Your task to perform on an android device: delete a single message in the gmail app Image 0: 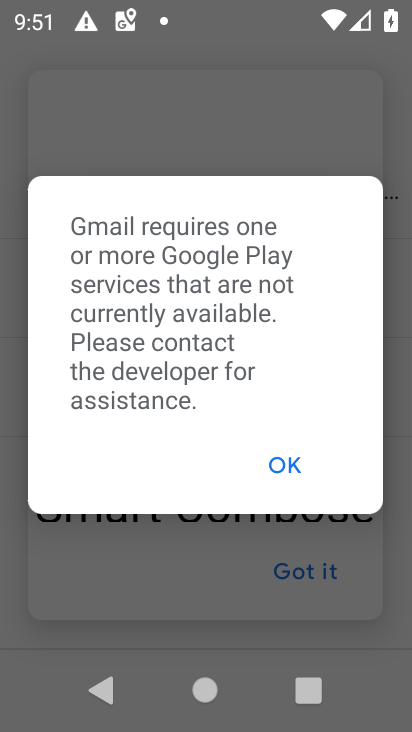
Step 0: press home button
Your task to perform on an android device: delete a single message in the gmail app Image 1: 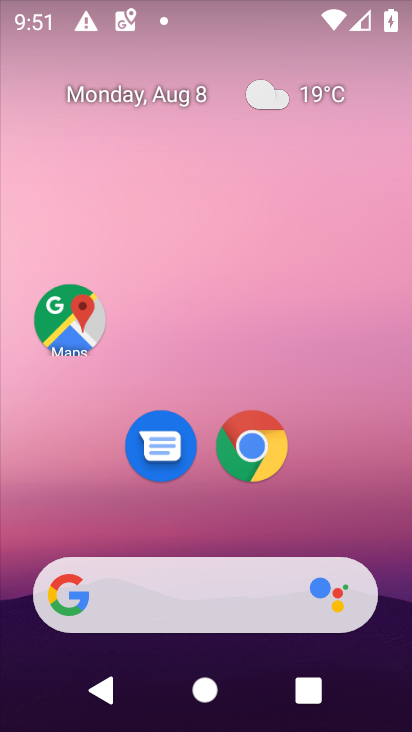
Step 1: drag from (403, 623) to (383, 159)
Your task to perform on an android device: delete a single message in the gmail app Image 2: 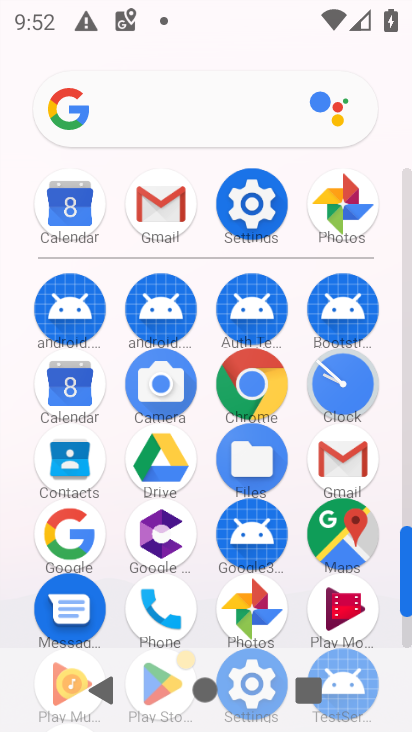
Step 2: click (340, 459)
Your task to perform on an android device: delete a single message in the gmail app Image 3: 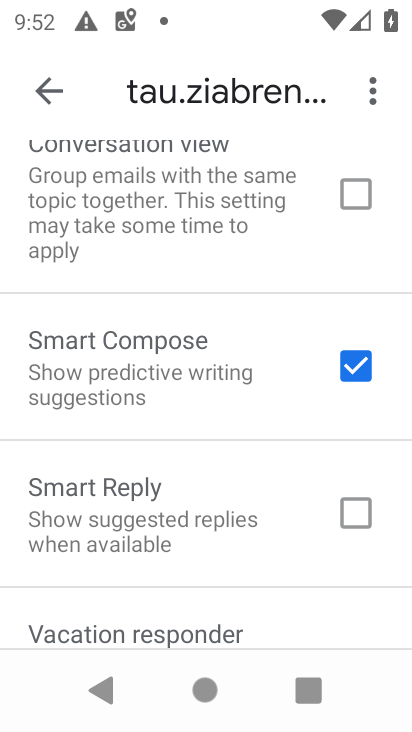
Step 3: press back button
Your task to perform on an android device: delete a single message in the gmail app Image 4: 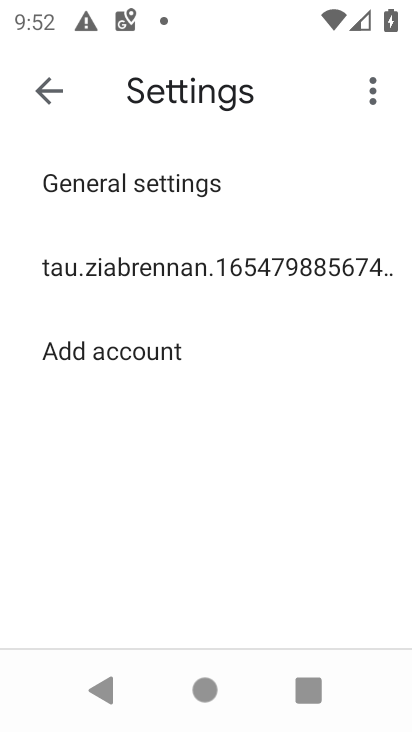
Step 4: press back button
Your task to perform on an android device: delete a single message in the gmail app Image 5: 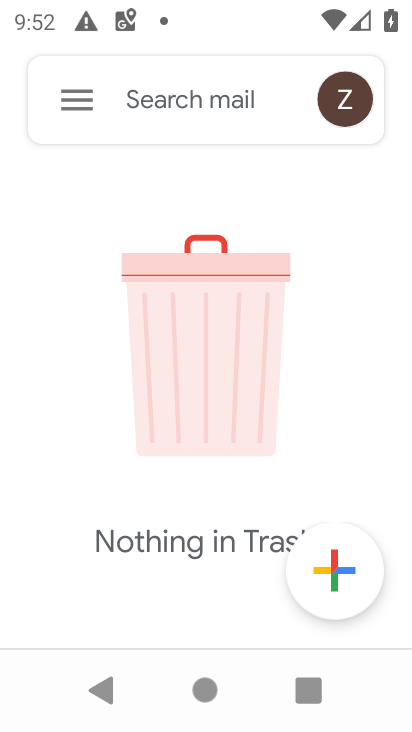
Step 5: click (71, 93)
Your task to perform on an android device: delete a single message in the gmail app Image 6: 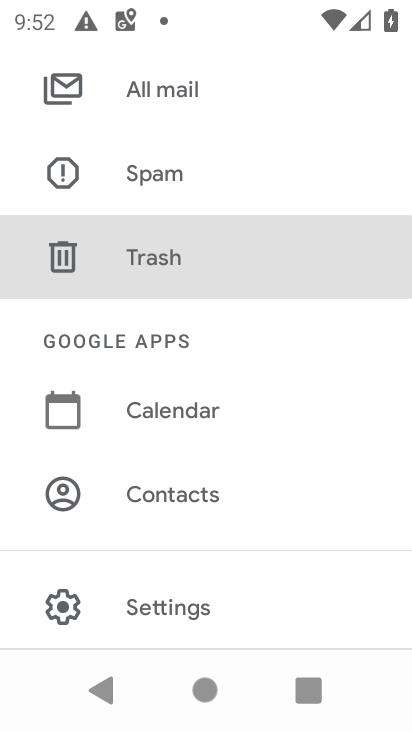
Step 6: click (168, 96)
Your task to perform on an android device: delete a single message in the gmail app Image 7: 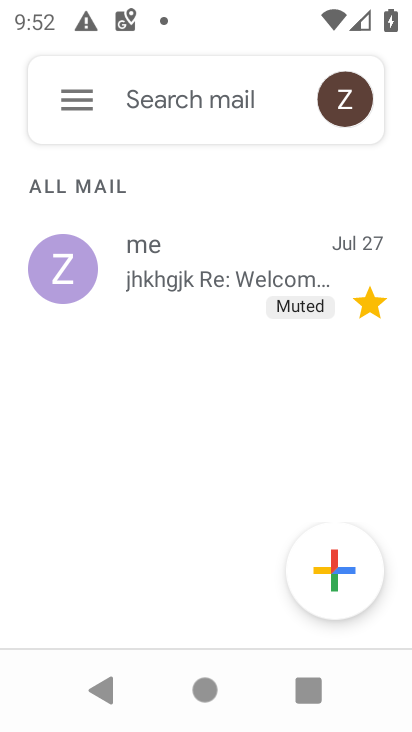
Step 7: click (225, 266)
Your task to perform on an android device: delete a single message in the gmail app Image 8: 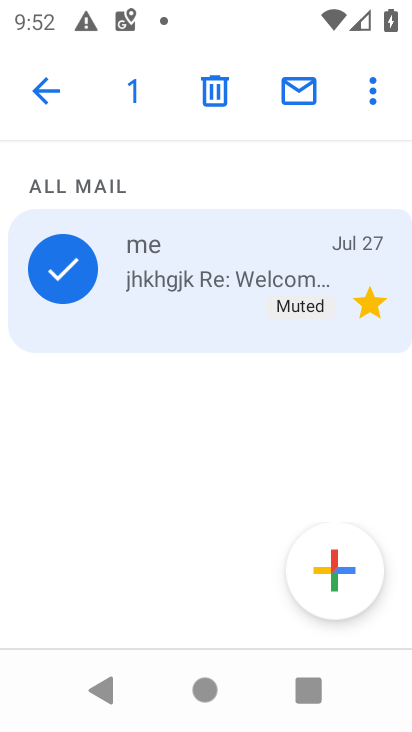
Step 8: click (213, 92)
Your task to perform on an android device: delete a single message in the gmail app Image 9: 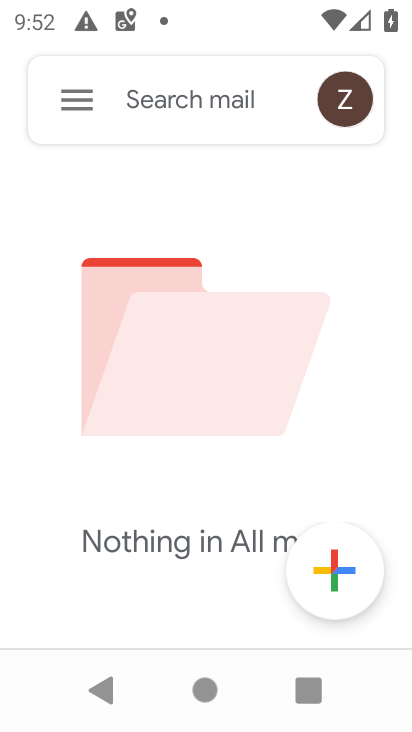
Step 9: task complete